Your task to perform on an android device: turn on priority inbox in the gmail app Image 0: 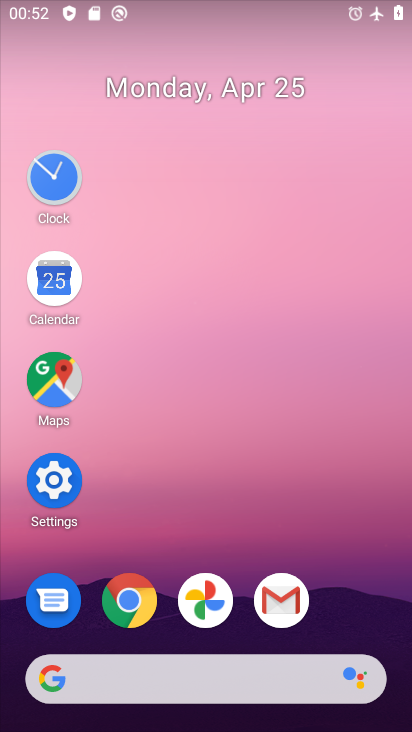
Step 0: click (279, 595)
Your task to perform on an android device: turn on priority inbox in the gmail app Image 1: 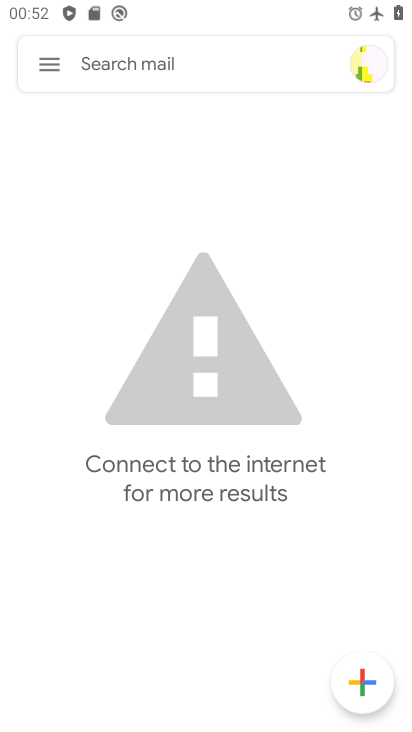
Step 1: click (52, 57)
Your task to perform on an android device: turn on priority inbox in the gmail app Image 2: 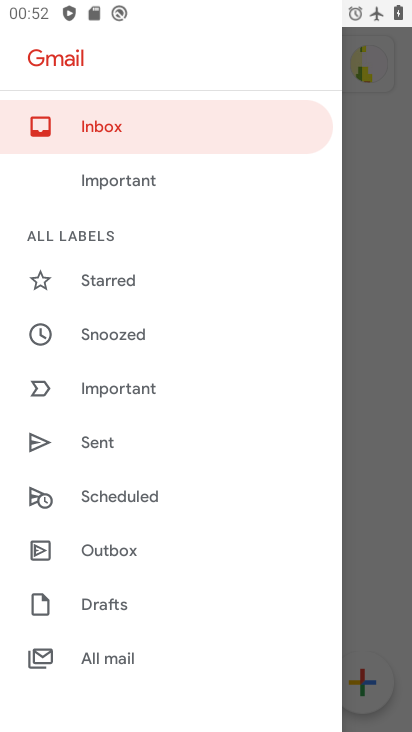
Step 2: drag from (140, 600) to (104, 30)
Your task to perform on an android device: turn on priority inbox in the gmail app Image 3: 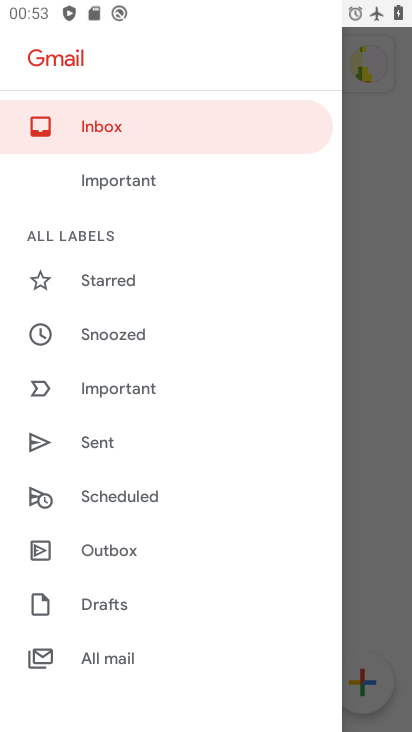
Step 3: drag from (189, 582) to (209, 60)
Your task to perform on an android device: turn on priority inbox in the gmail app Image 4: 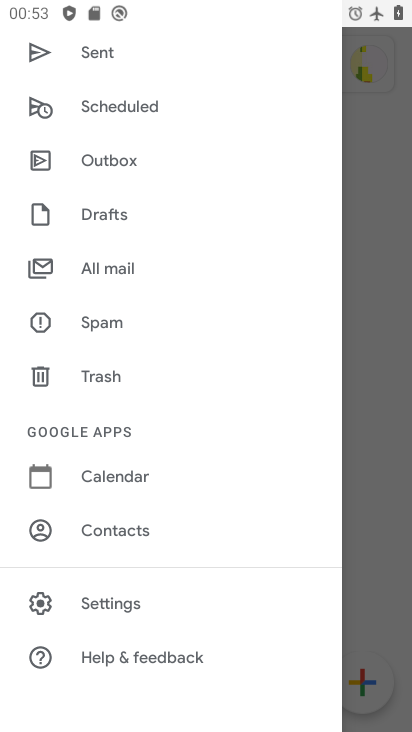
Step 4: click (115, 594)
Your task to perform on an android device: turn on priority inbox in the gmail app Image 5: 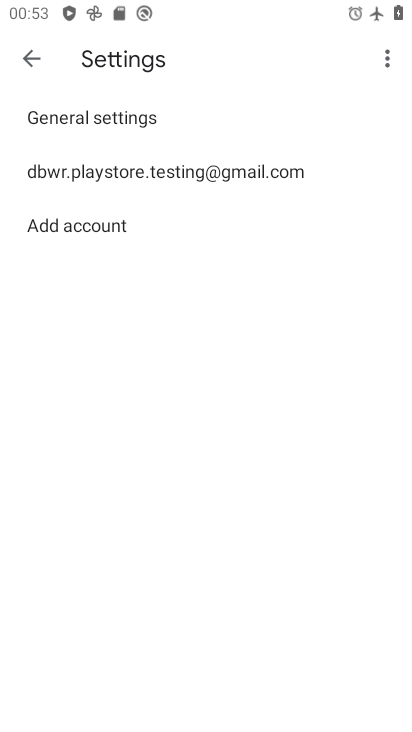
Step 5: click (170, 168)
Your task to perform on an android device: turn on priority inbox in the gmail app Image 6: 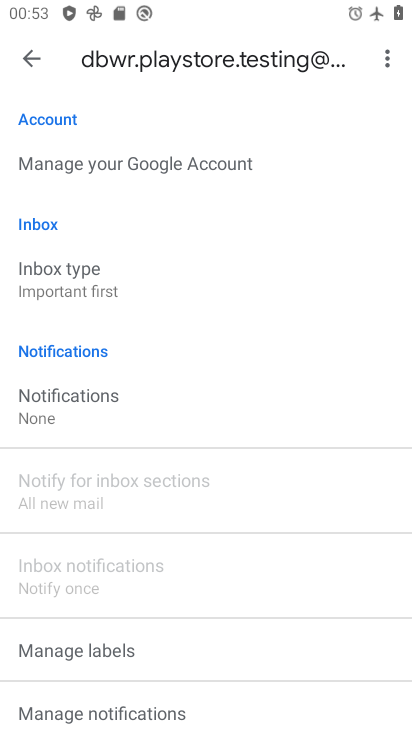
Step 6: click (59, 275)
Your task to perform on an android device: turn on priority inbox in the gmail app Image 7: 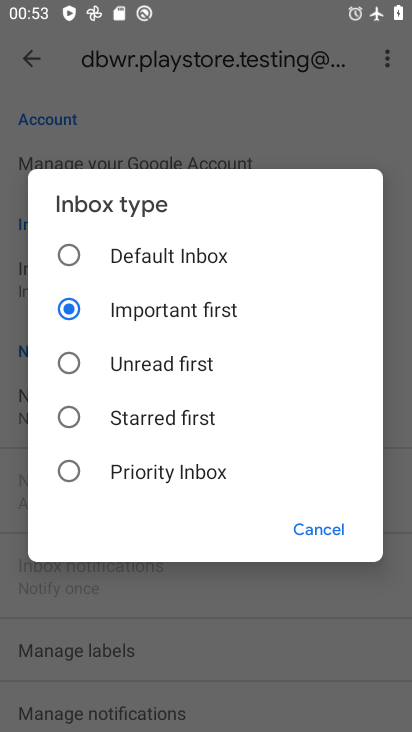
Step 7: click (69, 476)
Your task to perform on an android device: turn on priority inbox in the gmail app Image 8: 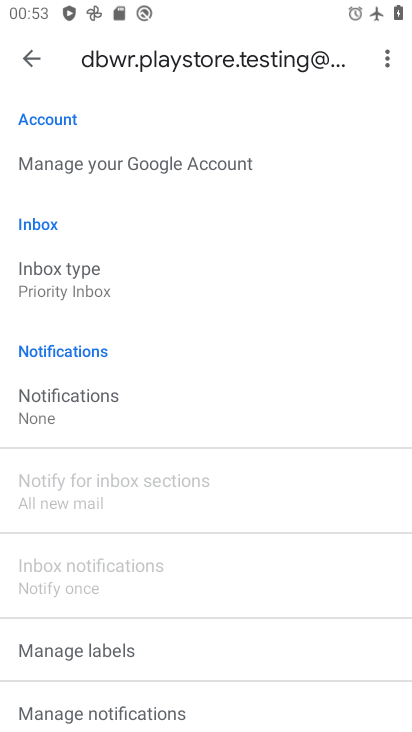
Step 8: task complete